Your task to perform on an android device: set default search engine in the chrome app Image 0: 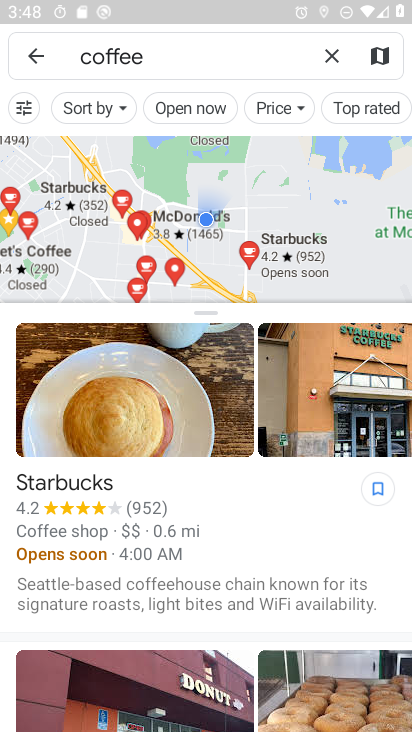
Step 0: press home button
Your task to perform on an android device: set default search engine in the chrome app Image 1: 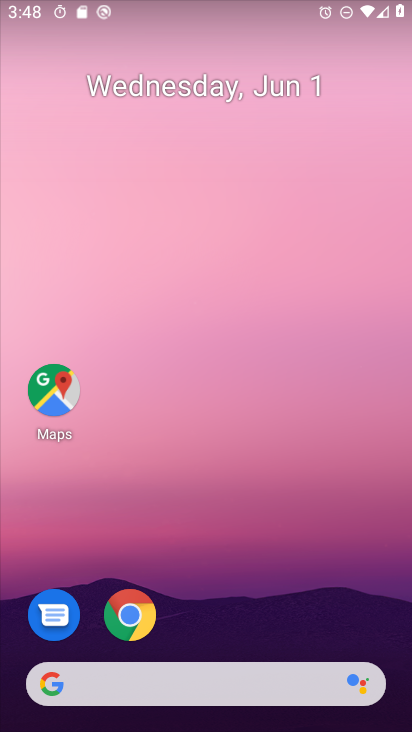
Step 1: drag from (231, 624) to (206, 123)
Your task to perform on an android device: set default search engine in the chrome app Image 2: 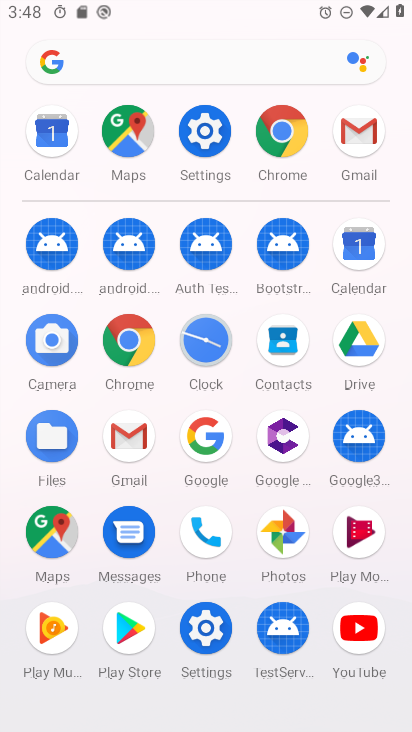
Step 2: click (287, 111)
Your task to perform on an android device: set default search engine in the chrome app Image 3: 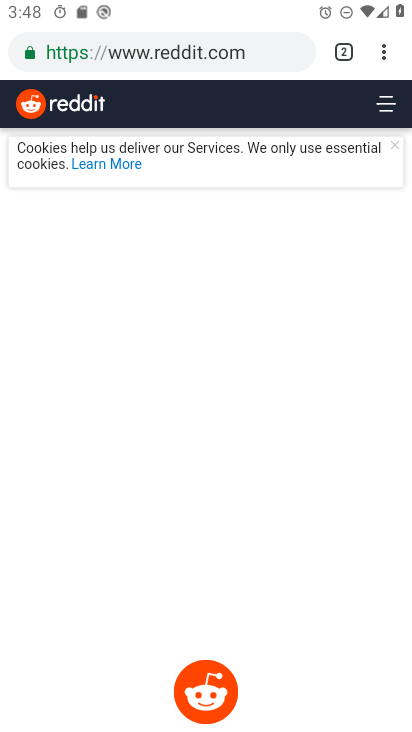
Step 3: click (384, 43)
Your task to perform on an android device: set default search engine in the chrome app Image 4: 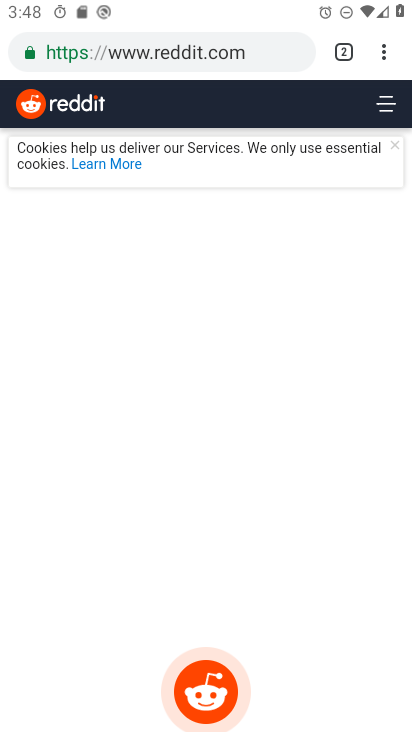
Step 4: click (394, 54)
Your task to perform on an android device: set default search engine in the chrome app Image 5: 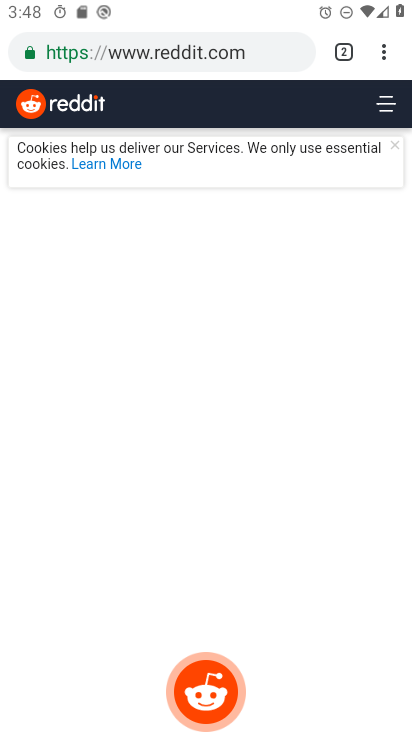
Step 5: click (375, 66)
Your task to perform on an android device: set default search engine in the chrome app Image 6: 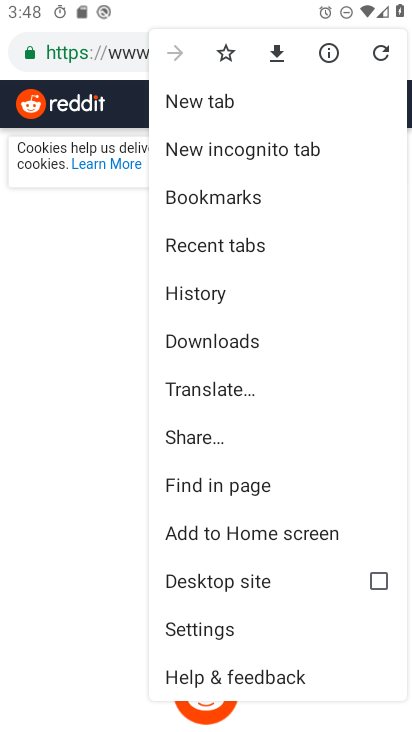
Step 6: click (214, 630)
Your task to perform on an android device: set default search engine in the chrome app Image 7: 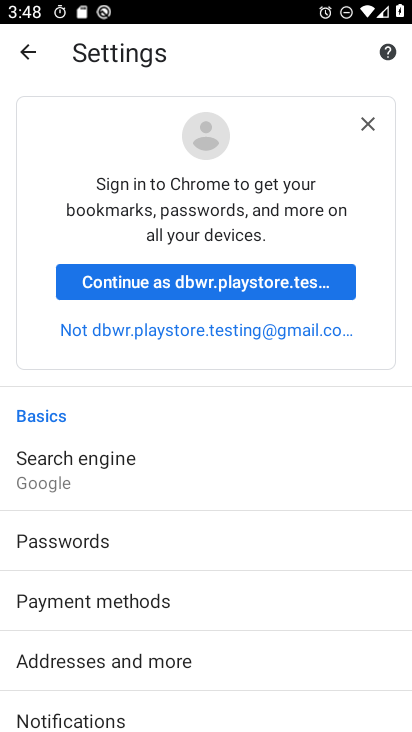
Step 7: click (133, 475)
Your task to perform on an android device: set default search engine in the chrome app Image 8: 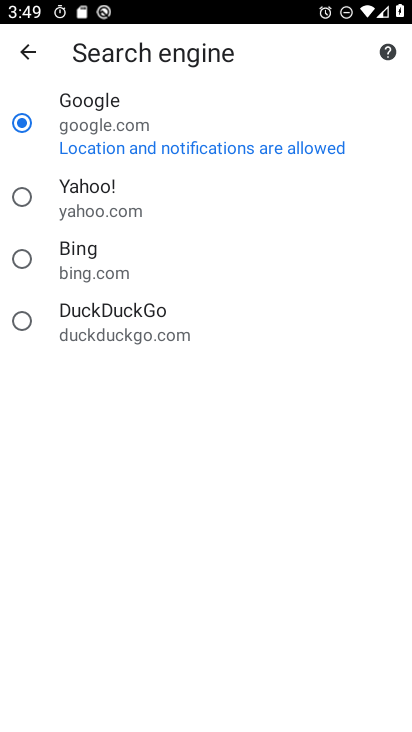
Step 8: task complete